Your task to perform on an android device: Go to network settings Image 0: 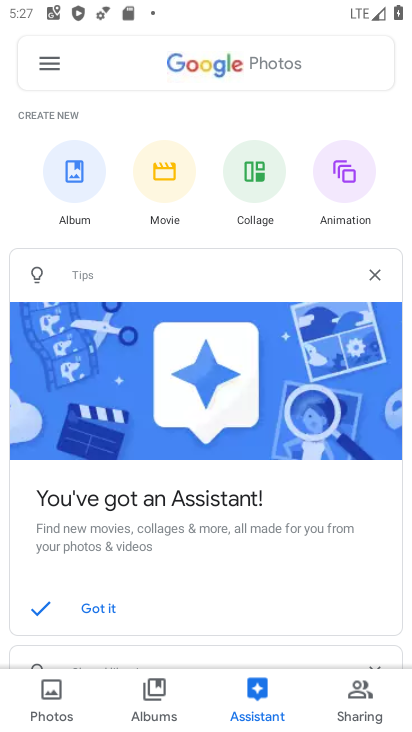
Step 0: press home button
Your task to perform on an android device: Go to network settings Image 1: 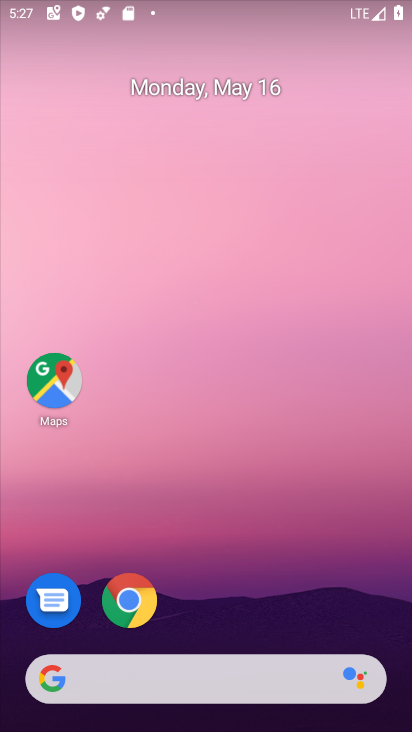
Step 1: drag from (221, 654) to (288, 0)
Your task to perform on an android device: Go to network settings Image 2: 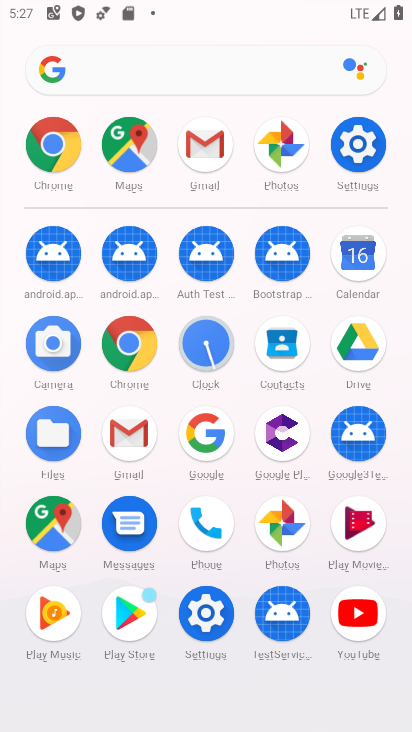
Step 2: click (344, 140)
Your task to perform on an android device: Go to network settings Image 3: 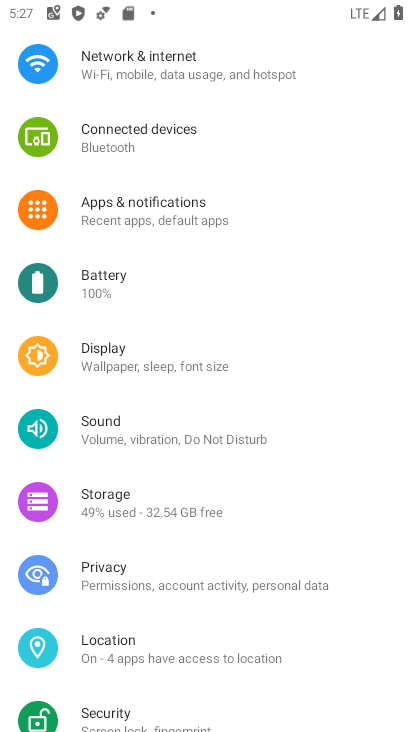
Step 3: click (147, 83)
Your task to perform on an android device: Go to network settings Image 4: 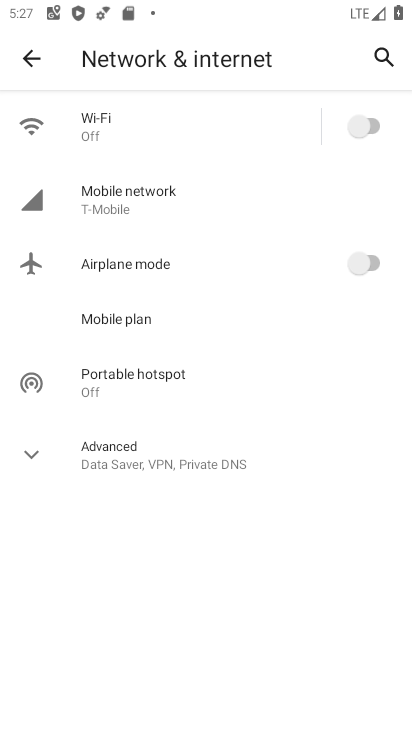
Step 4: click (122, 223)
Your task to perform on an android device: Go to network settings Image 5: 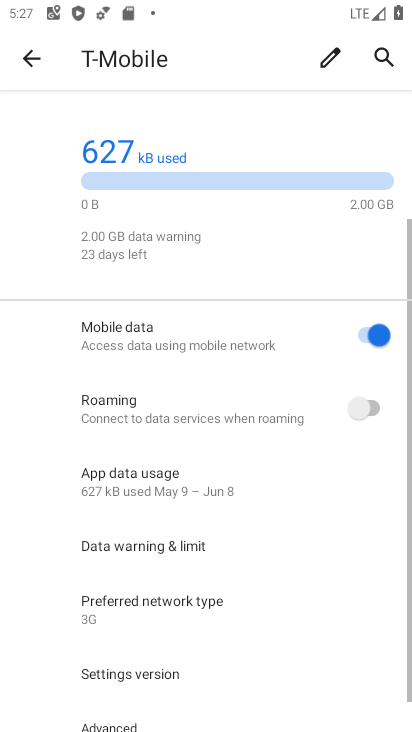
Step 5: task complete